Your task to perform on an android device: Go to Android settings Image 0: 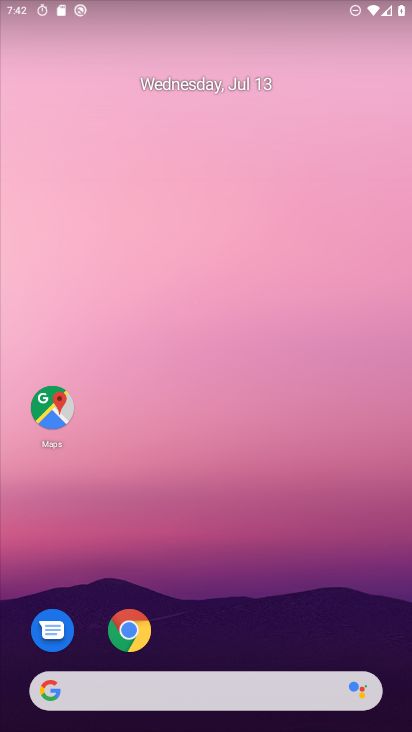
Step 0: drag from (375, 620) to (328, 0)
Your task to perform on an android device: Go to Android settings Image 1: 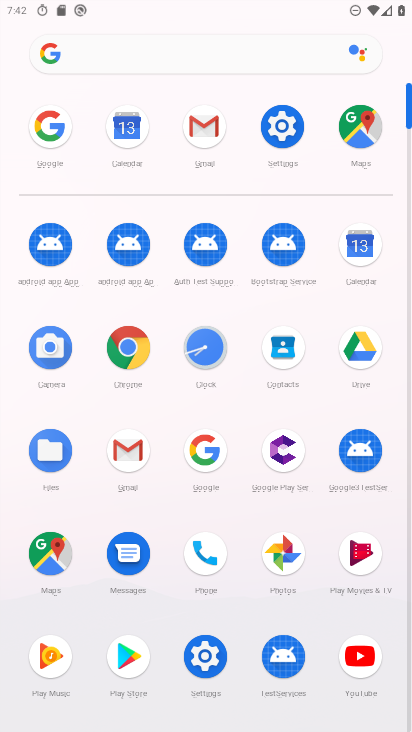
Step 1: click (278, 133)
Your task to perform on an android device: Go to Android settings Image 2: 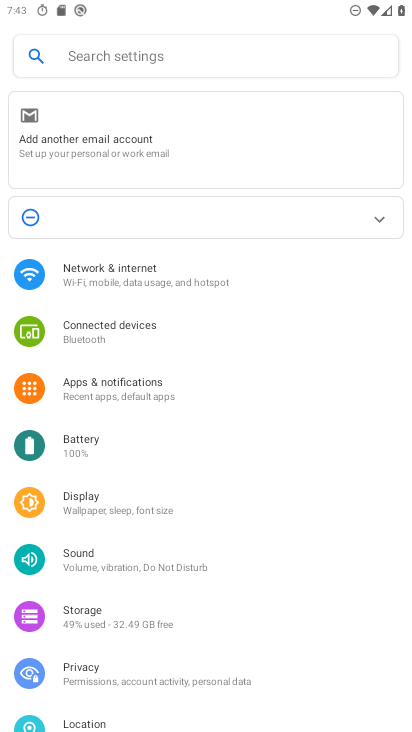
Step 2: task complete